Your task to perform on an android device: turn off picture-in-picture Image 0: 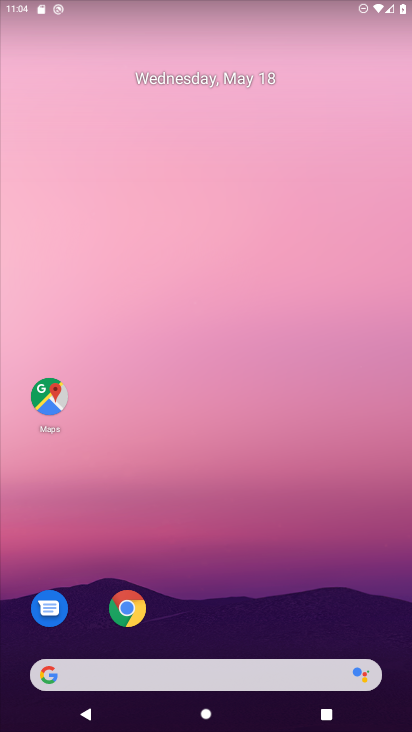
Step 0: click (129, 608)
Your task to perform on an android device: turn off picture-in-picture Image 1: 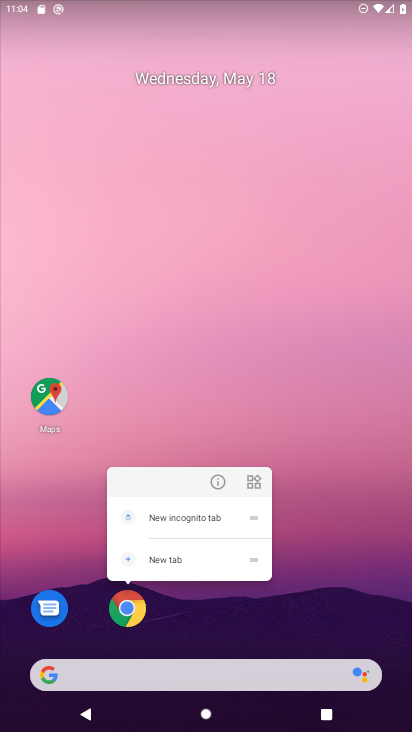
Step 1: click (217, 482)
Your task to perform on an android device: turn off picture-in-picture Image 2: 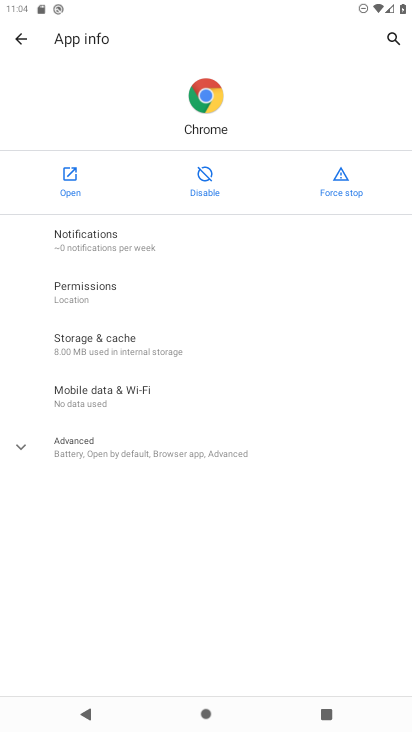
Step 2: click (108, 442)
Your task to perform on an android device: turn off picture-in-picture Image 3: 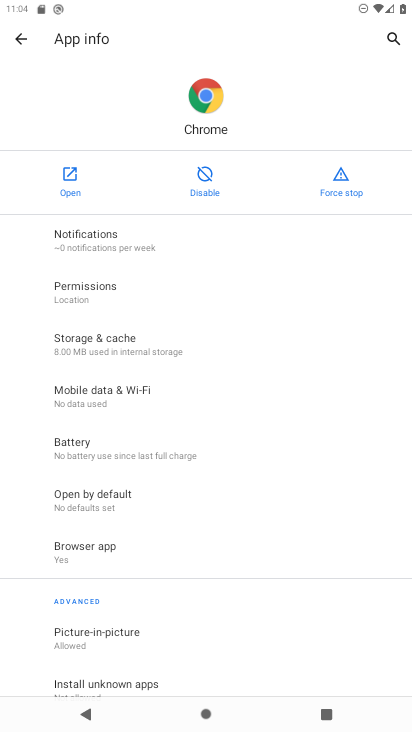
Step 3: drag from (144, 546) to (200, 466)
Your task to perform on an android device: turn off picture-in-picture Image 4: 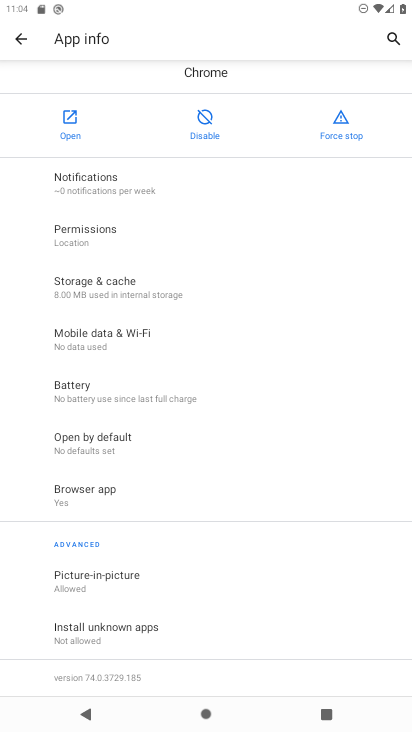
Step 4: click (99, 571)
Your task to perform on an android device: turn off picture-in-picture Image 5: 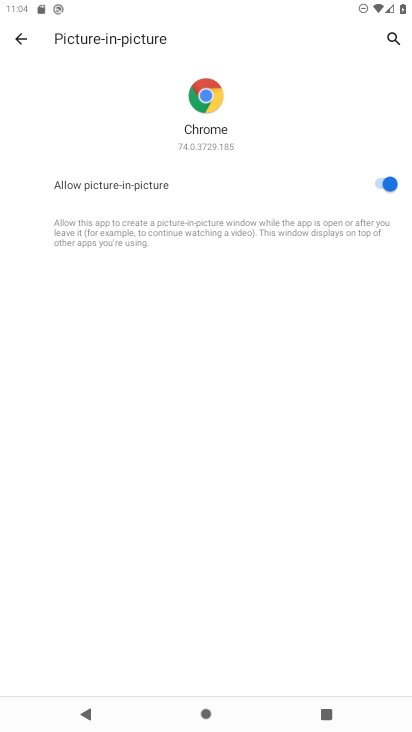
Step 5: click (384, 184)
Your task to perform on an android device: turn off picture-in-picture Image 6: 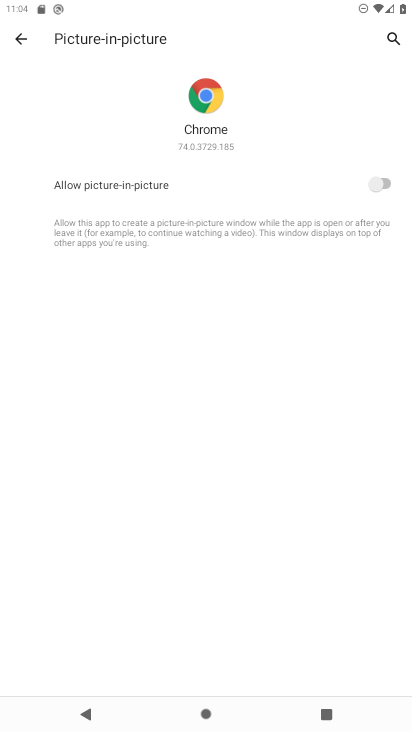
Step 6: task complete